Your task to perform on an android device: turn on showing notifications on the lock screen Image 0: 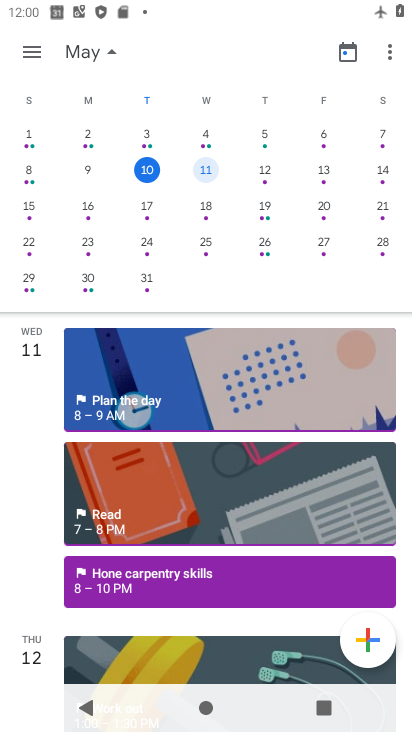
Step 0: press home button
Your task to perform on an android device: turn on showing notifications on the lock screen Image 1: 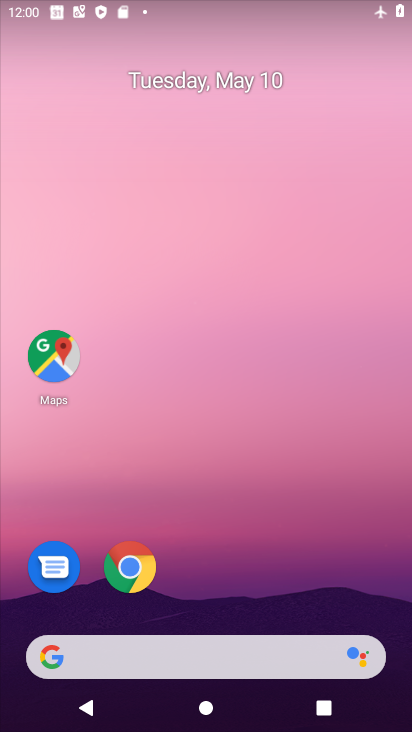
Step 1: drag from (388, 608) to (268, 9)
Your task to perform on an android device: turn on showing notifications on the lock screen Image 2: 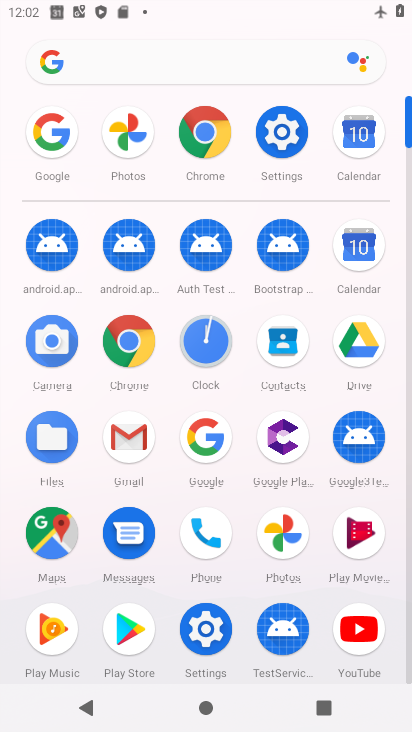
Step 2: click (208, 650)
Your task to perform on an android device: turn on showing notifications on the lock screen Image 3: 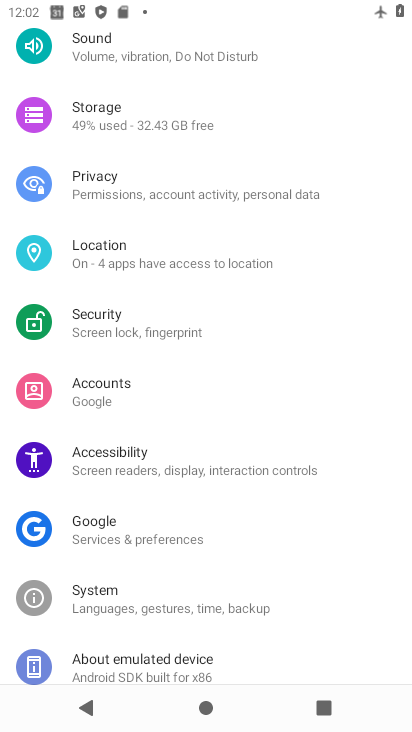
Step 3: drag from (185, 72) to (210, 492)
Your task to perform on an android device: turn on showing notifications on the lock screen Image 4: 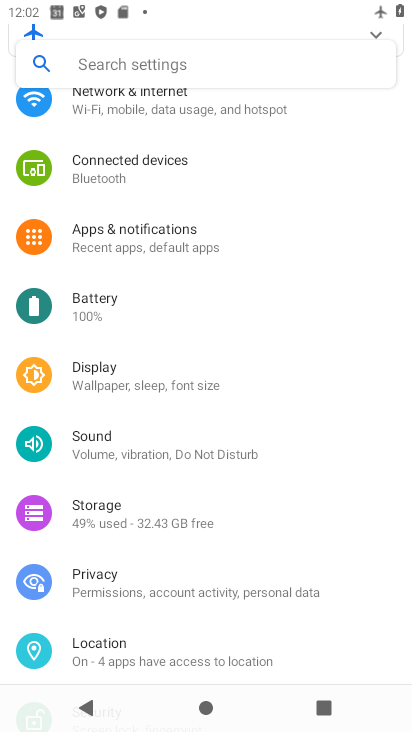
Step 4: click (169, 249)
Your task to perform on an android device: turn on showing notifications on the lock screen Image 5: 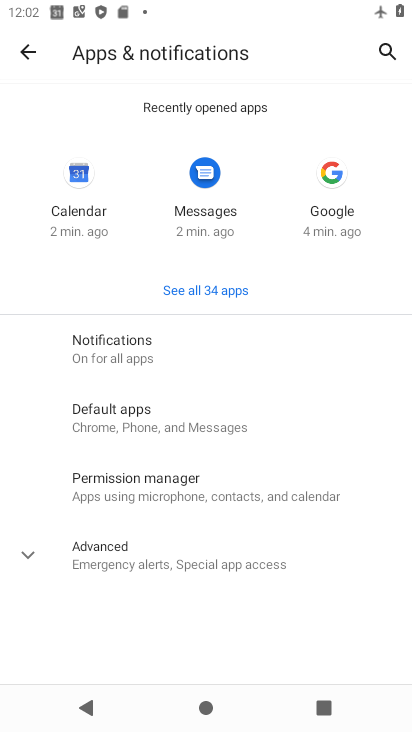
Step 5: click (169, 347)
Your task to perform on an android device: turn on showing notifications on the lock screen Image 6: 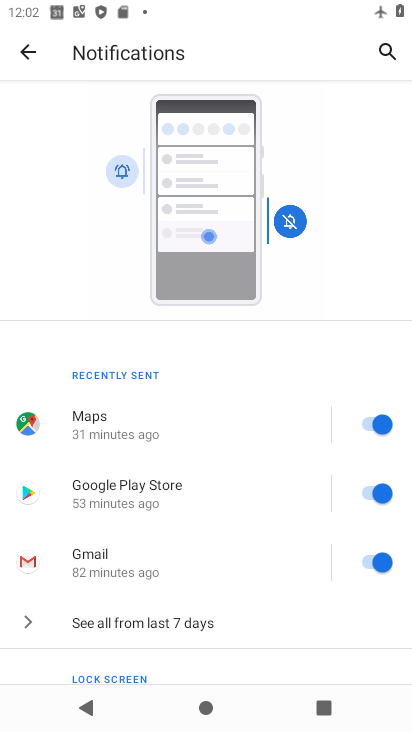
Step 6: drag from (217, 624) to (255, 257)
Your task to perform on an android device: turn on showing notifications on the lock screen Image 7: 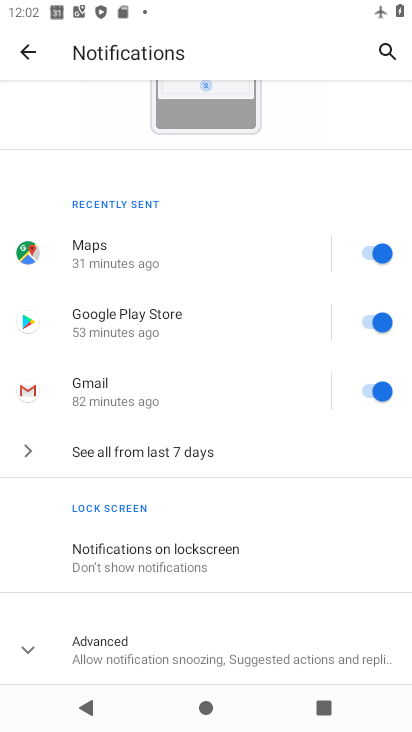
Step 7: click (230, 536)
Your task to perform on an android device: turn on showing notifications on the lock screen Image 8: 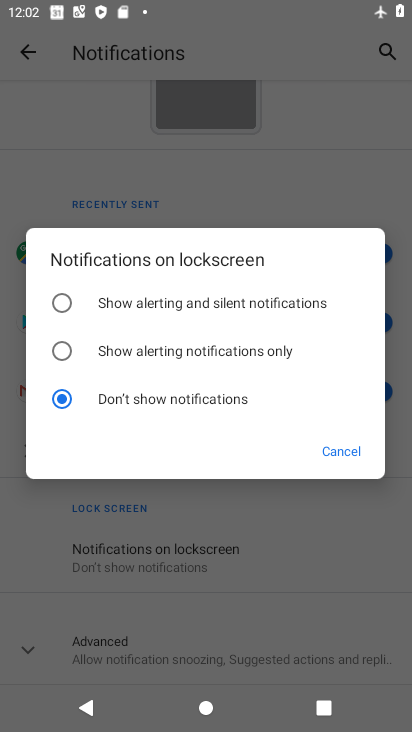
Step 8: click (142, 310)
Your task to perform on an android device: turn on showing notifications on the lock screen Image 9: 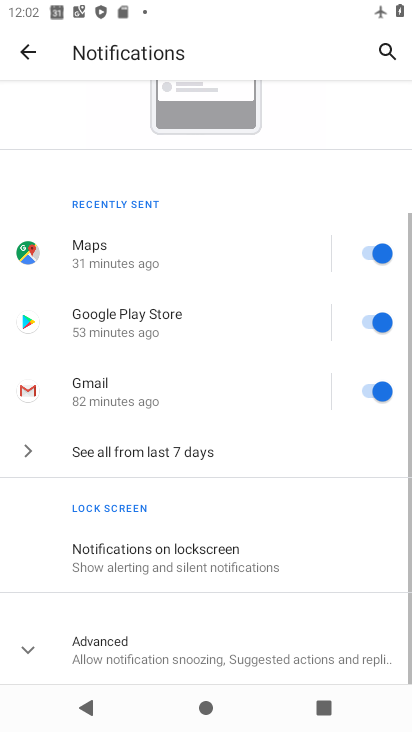
Step 9: task complete